Your task to perform on an android device: Show me popular videos on Youtube Image 0: 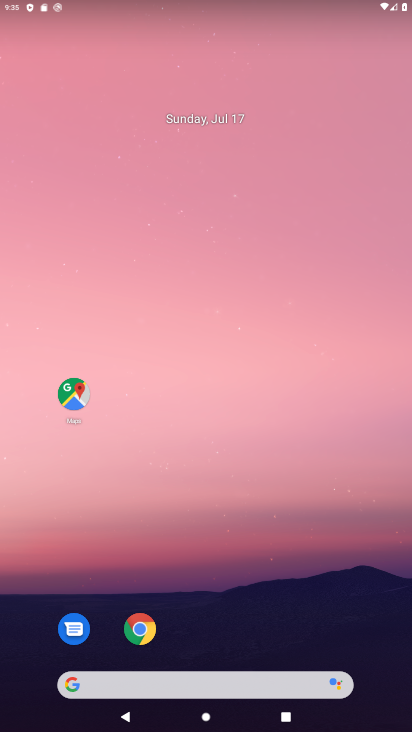
Step 0: drag from (324, 190) to (406, 210)
Your task to perform on an android device: Show me popular videos on Youtube Image 1: 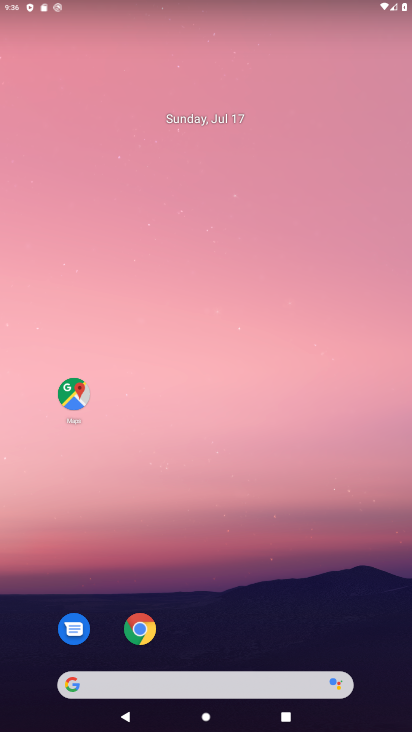
Step 1: drag from (225, 535) to (226, 4)
Your task to perform on an android device: Show me popular videos on Youtube Image 2: 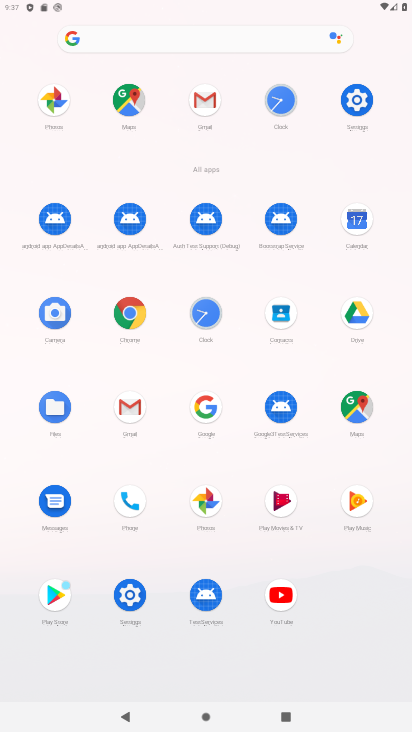
Step 2: click (276, 609)
Your task to perform on an android device: Show me popular videos on Youtube Image 3: 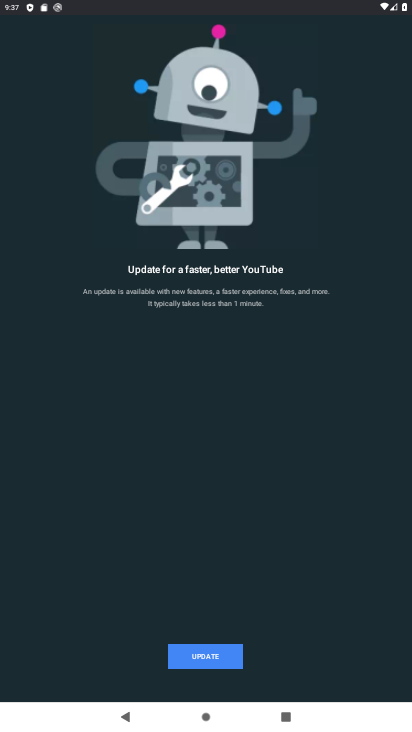
Step 3: click (242, 659)
Your task to perform on an android device: Show me popular videos on Youtube Image 4: 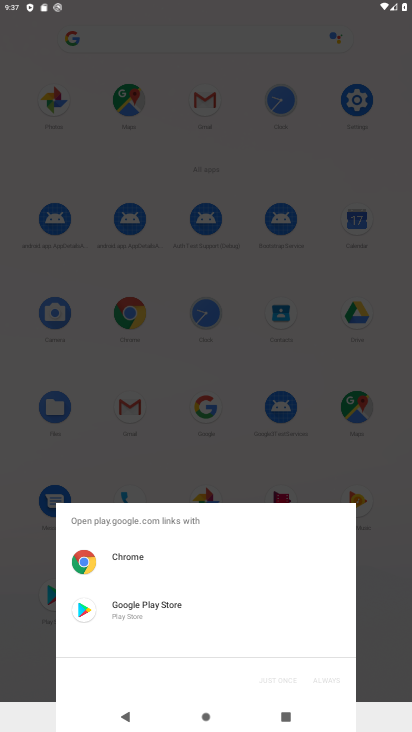
Step 4: click (121, 600)
Your task to perform on an android device: Show me popular videos on Youtube Image 5: 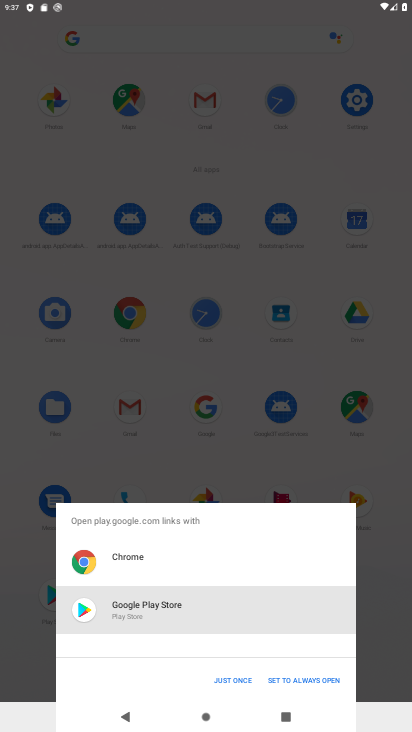
Step 5: click (234, 694)
Your task to perform on an android device: Show me popular videos on Youtube Image 6: 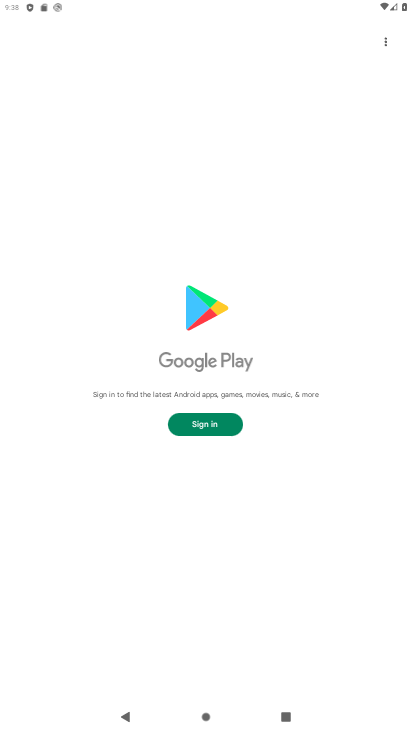
Step 6: press home button
Your task to perform on an android device: Show me popular videos on Youtube Image 7: 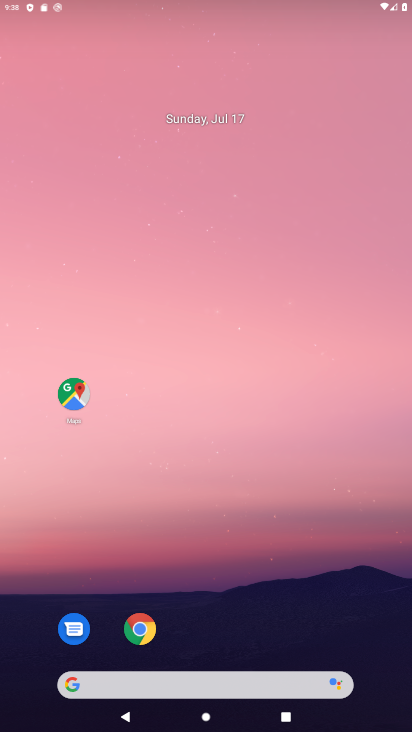
Step 7: drag from (284, 622) to (255, 16)
Your task to perform on an android device: Show me popular videos on Youtube Image 8: 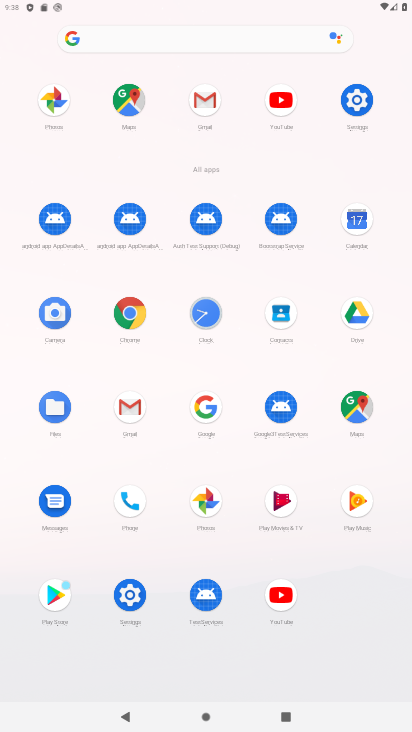
Step 8: click (276, 96)
Your task to perform on an android device: Show me popular videos on Youtube Image 9: 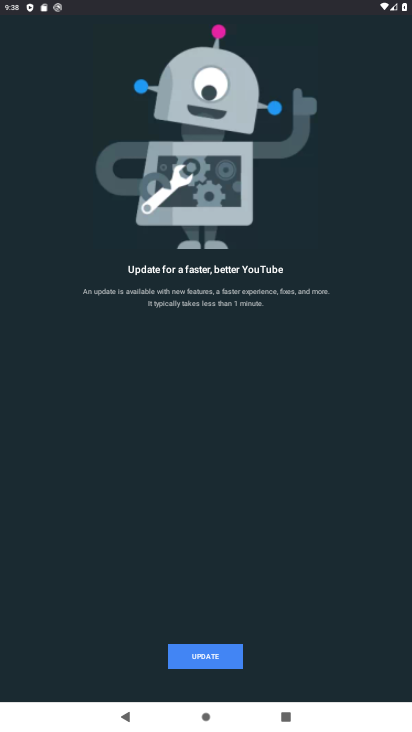
Step 9: click (201, 659)
Your task to perform on an android device: Show me popular videos on Youtube Image 10: 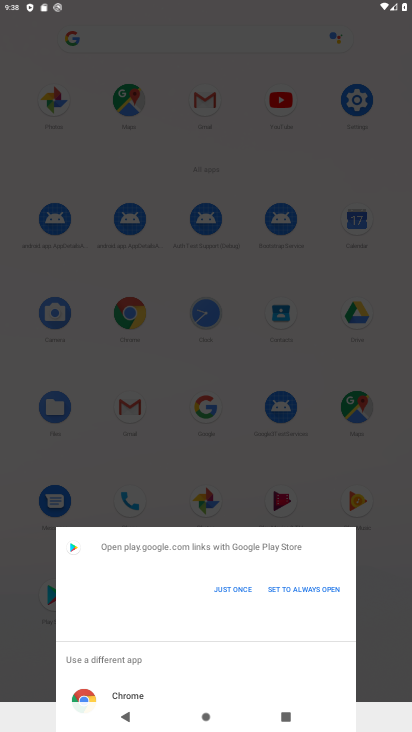
Step 10: click (247, 587)
Your task to perform on an android device: Show me popular videos on Youtube Image 11: 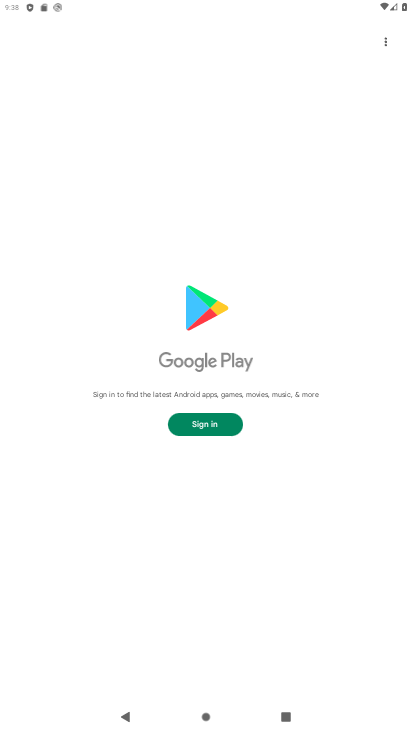
Step 11: task complete